Your task to perform on an android device: change your default location settings in chrome Image 0: 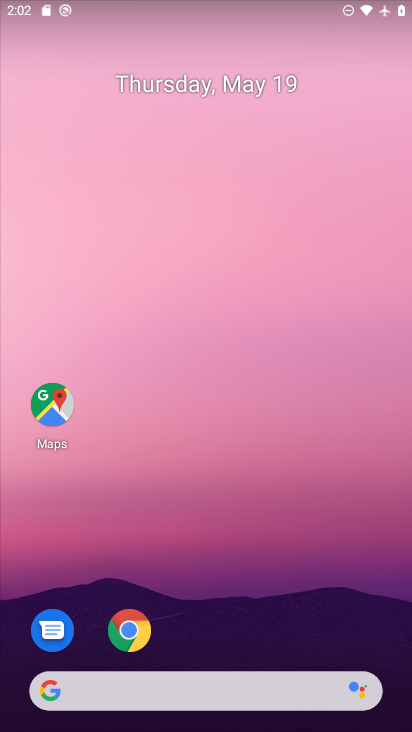
Step 0: drag from (197, 658) to (201, 201)
Your task to perform on an android device: change your default location settings in chrome Image 1: 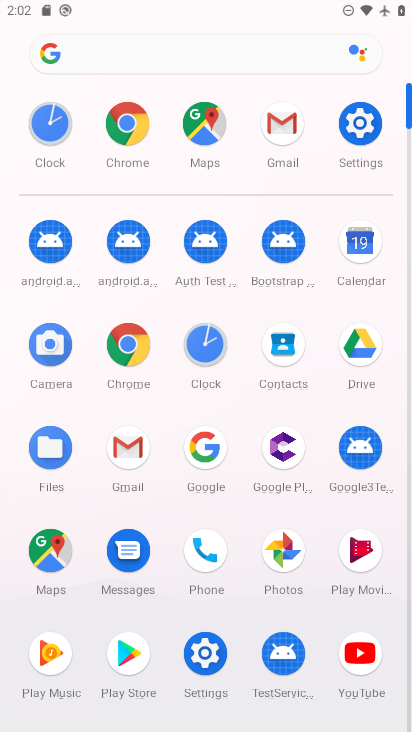
Step 1: click (138, 346)
Your task to perform on an android device: change your default location settings in chrome Image 2: 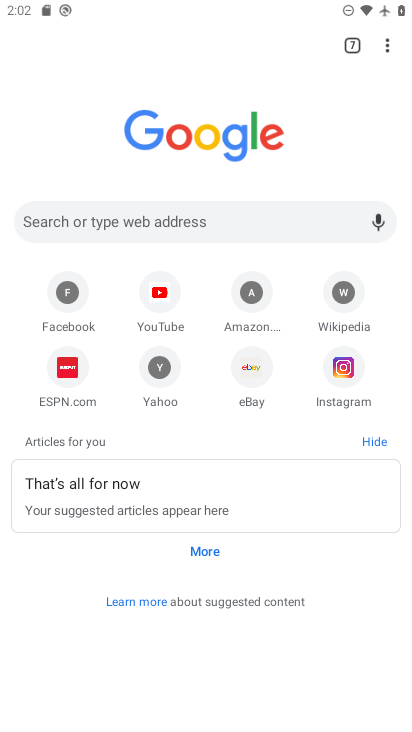
Step 2: drag from (384, 43) to (231, 375)
Your task to perform on an android device: change your default location settings in chrome Image 3: 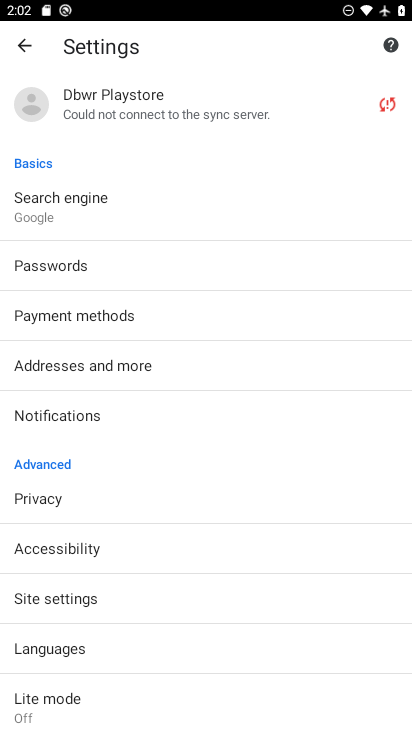
Step 3: click (37, 494)
Your task to perform on an android device: change your default location settings in chrome Image 4: 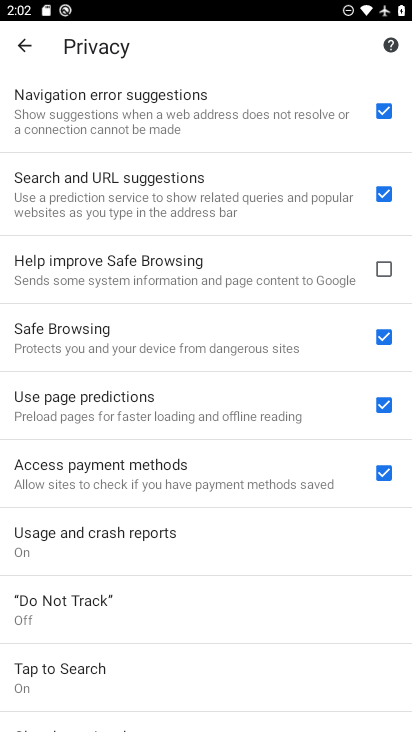
Step 4: click (35, 34)
Your task to perform on an android device: change your default location settings in chrome Image 5: 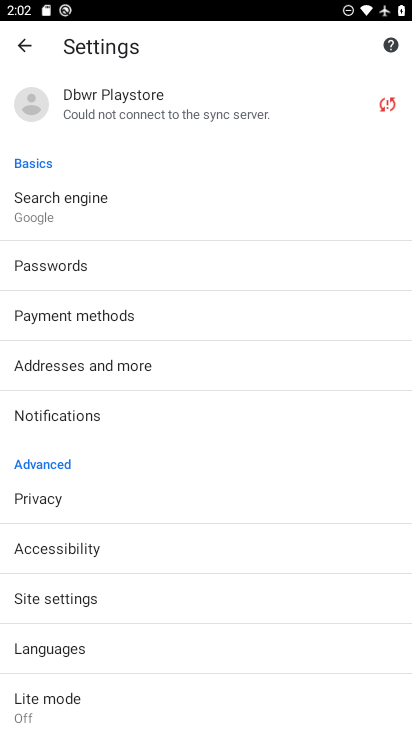
Step 5: click (108, 616)
Your task to perform on an android device: change your default location settings in chrome Image 6: 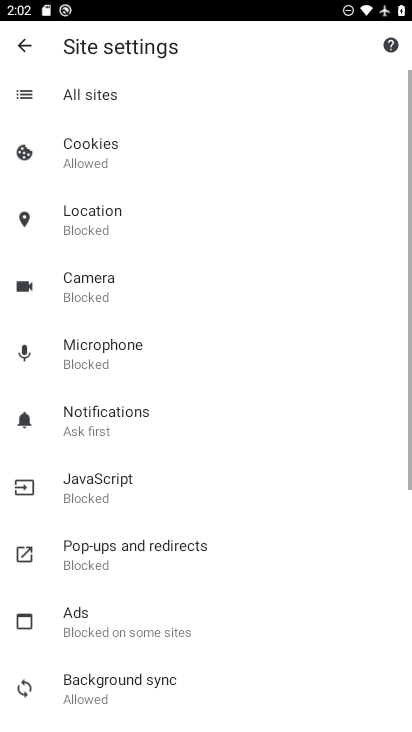
Step 6: click (136, 198)
Your task to perform on an android device: change your default location settings in chrome Image 7: 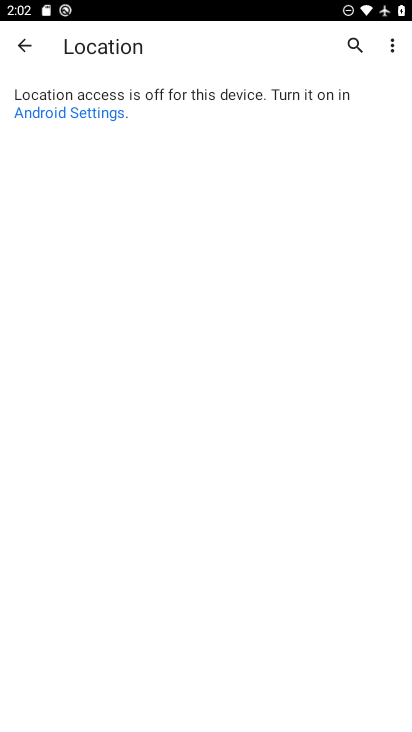
Step 7: task complete